Your task to perform on an android device: manage bookmarks in the chrome app Image 0: 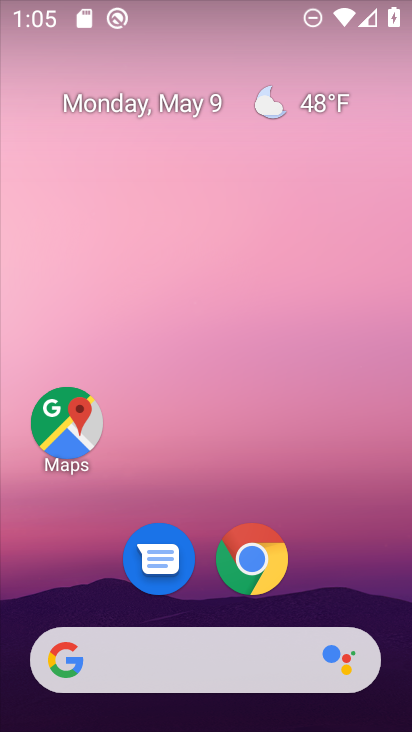
Step 0: drag from (205, 568) to (326, 1)
Your task to perform on an android device: manage bookmarks in the chrome app Image 1: 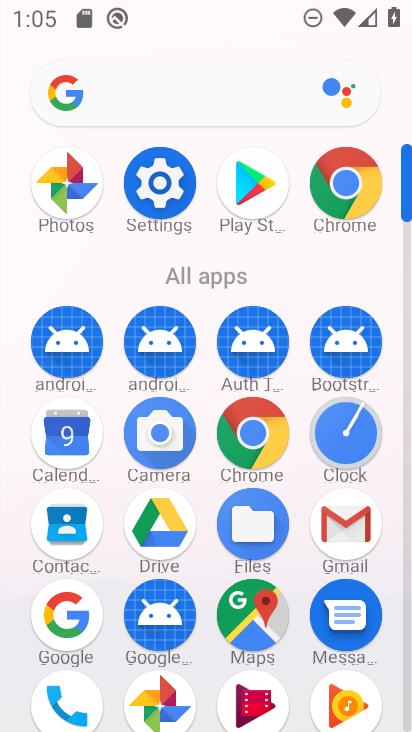
Step 1: click (344, 179)
Your task to perform on an android device: manage bookmarks in the chrome app Image 2: 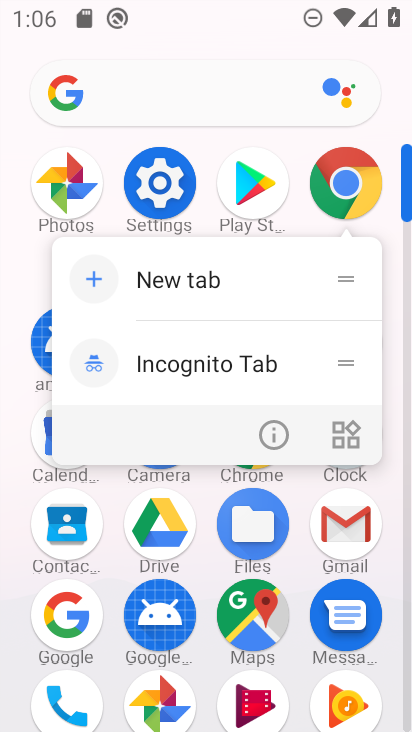
Step 2: click (267, 437)
Your task to perform on an android device: manage bookmarks in the chrome app Image 3: 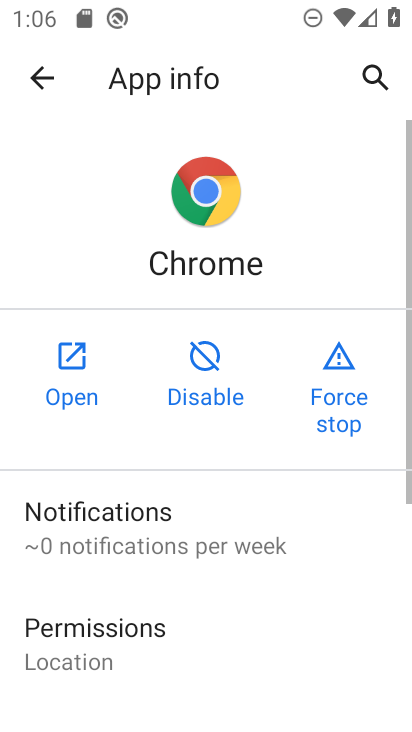
Step 3: click (74, 371)
Your task to perform on an android device: manage bookmarks in the chrome app Image 4: 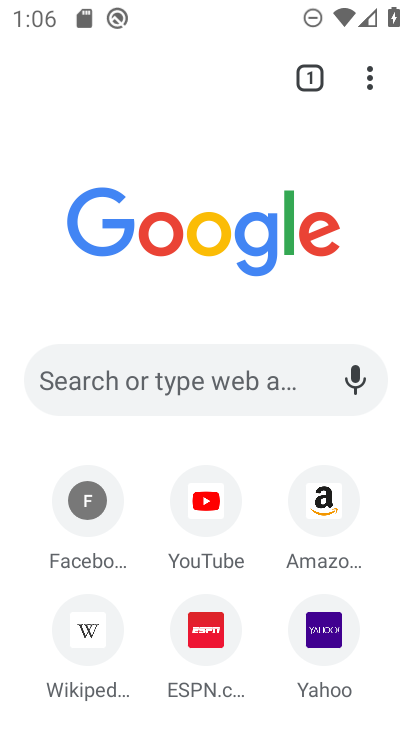
Step 4: click (362, 77)
Your task to perform on an android device: manage bookmarks in the chrome app Image 5: 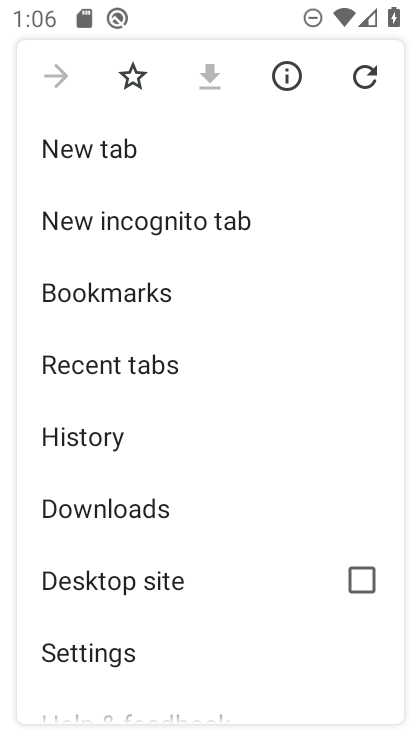
Step 5: click (134, 274)
Your task to perform on an android device: manage bookmarks in the chrome app Image 6: 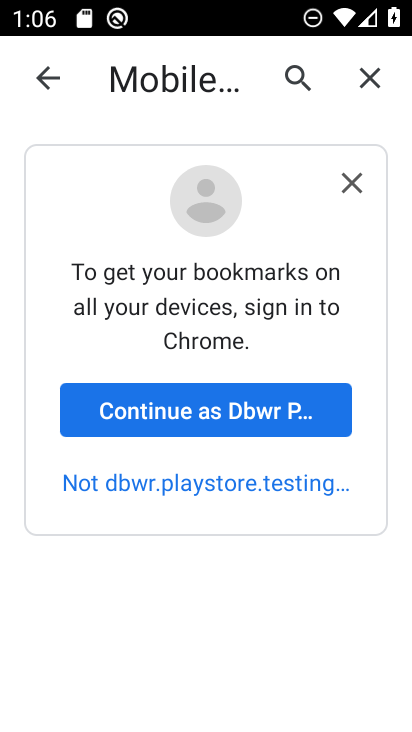
Step 6: click (351, 183)
Your task to perform on an android device: manage bookmarks in the chrome app Image 7: 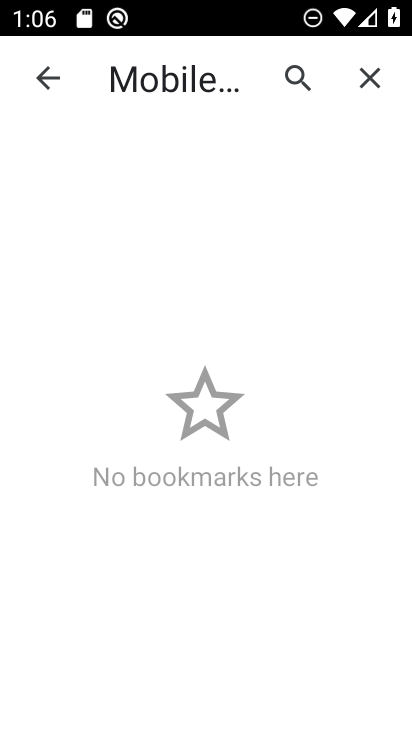
Step 7: drag from (202, 555) to (209, 297)
Your task to perform on an android device: manage bookmarks in the chrome app Image 8: 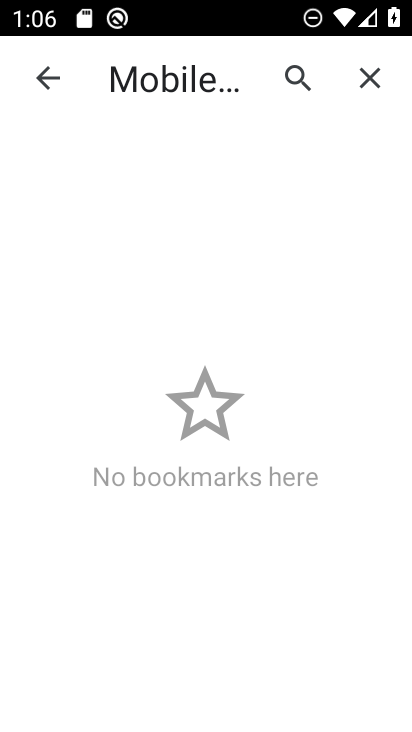
Step 8: drag from (221, 301) to (205, 618)
Your task to perform on an android device: manage bookmarks in the chrome app Image 9: 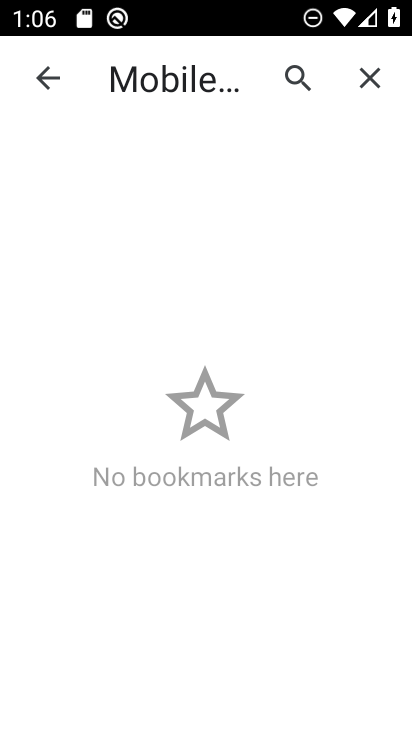
Step 9: click (379, 67)
Your task to perform on an android device: manage bookmarks in the chrome app Image 10: 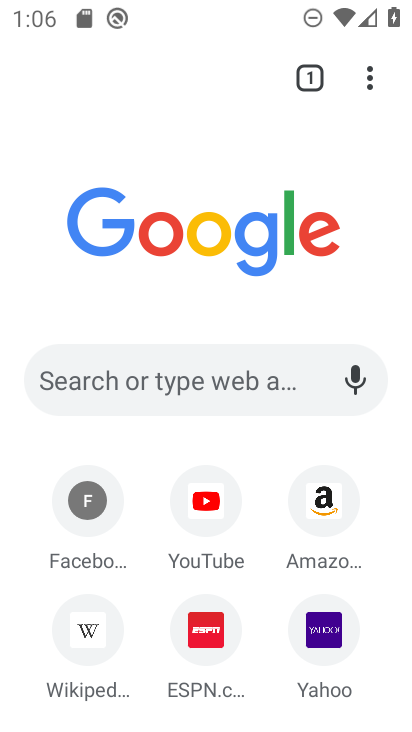
Step 10: click (367, 84)
Your task to perform on an android device: manage bookmarks in the chrome app Image 11: 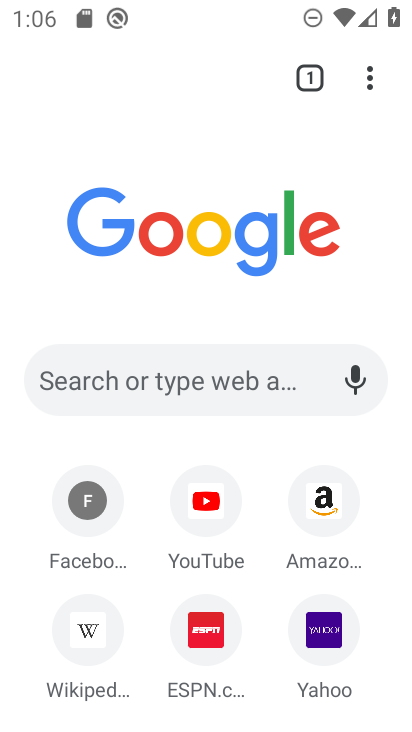
Step 11: task complete